Your task to perform on an android device: open device folders in google photos Image 0: 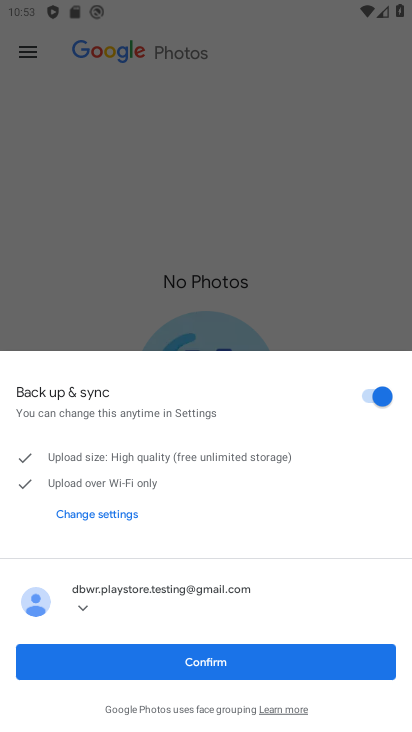
Step 0: press back button
Your task to perform on an android device: open device folders in google photos Image 1: 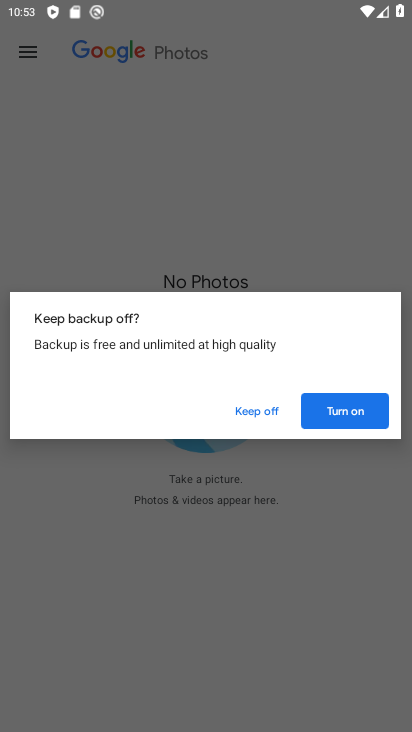
Step 1: click (253, 412)
Your task to perform on an android device: open device folders in google photos Image 2: 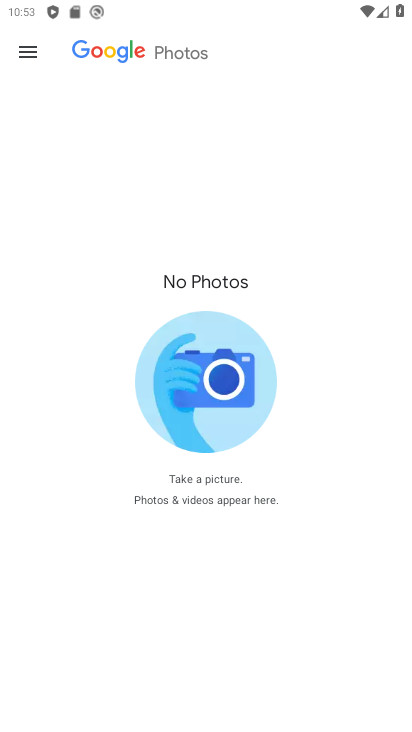
Step 2: click (36, 49)
Your task to perform on an android device: open device folders in google photos Image 3: 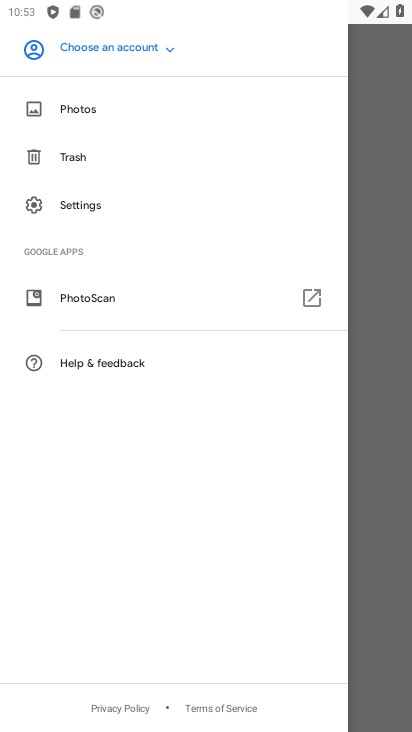
Step 3: click (99, 107)
Your task to perform on an android device: open device folders in google photos Image 4: 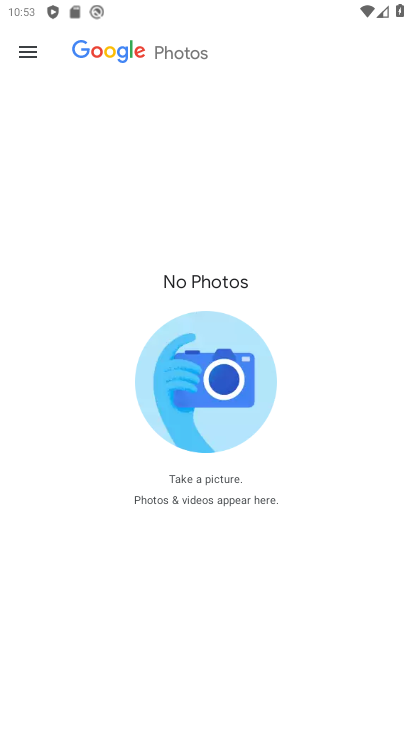
Step 4: task complete